Your task to perform on an android device: set the stopwatch Image 0: 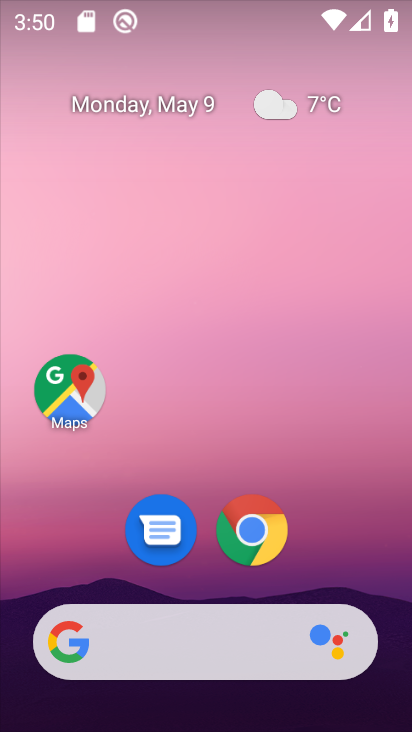
Step 0: drag from (196, 594) to (277, 55)
Your task to perform on an android device: set the stopwatch Image 1: 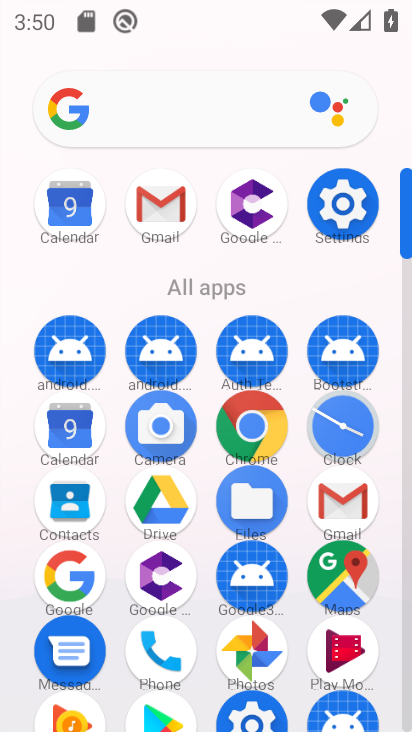
Step 1: click (338, 434)
Your task to perform on an android device: set the stopwatch Image 2: 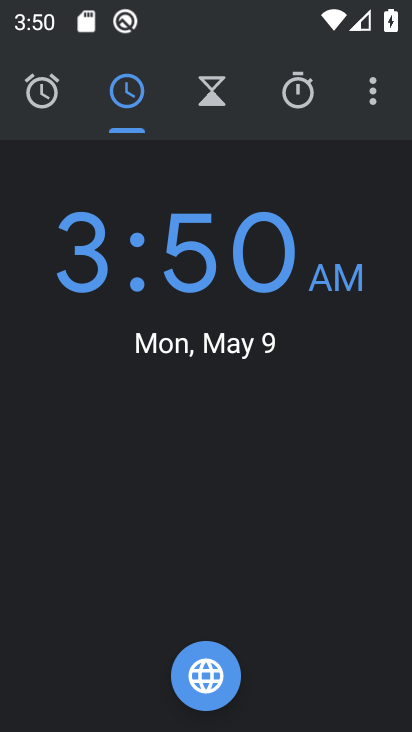
Step 2: click (299, 90)
Your task to perform on an android device: set the stopwatch Image 3: 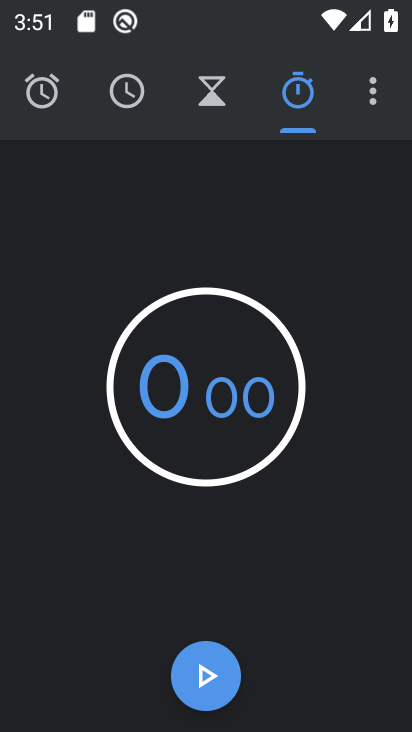
Step 3: click (201, 406)
Your task to perform on an android device: set the stopwatch Image 4: 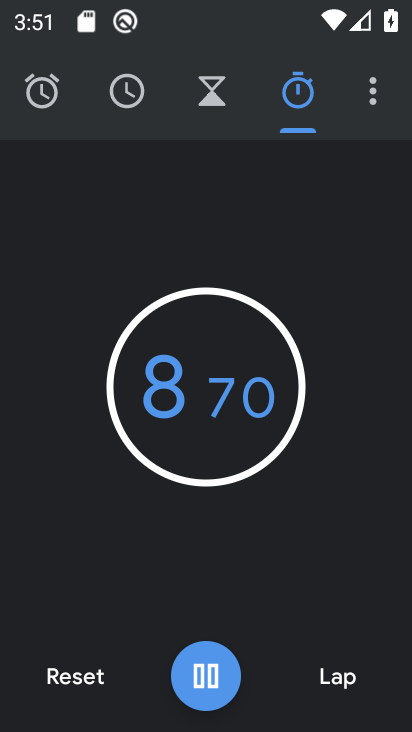
Step 4: click (216, 387)
Your task to perform on an android device: set the stopwatch Image 5: 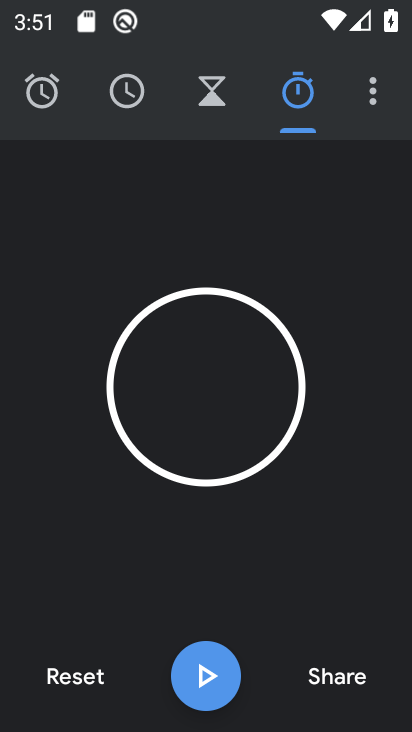
Step 5: task complete